Your task to perform on an android device: Go to calendar. Show me events next week Image 0: 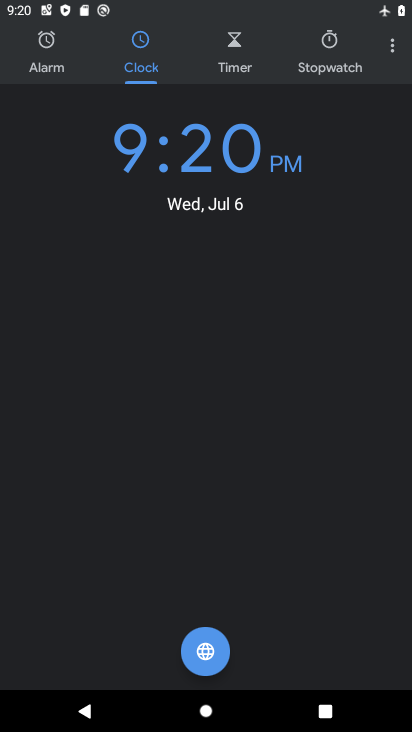
Step 0: press home button
Your task to perform on an android device: Go to calendar. Show me events next week Image 1: 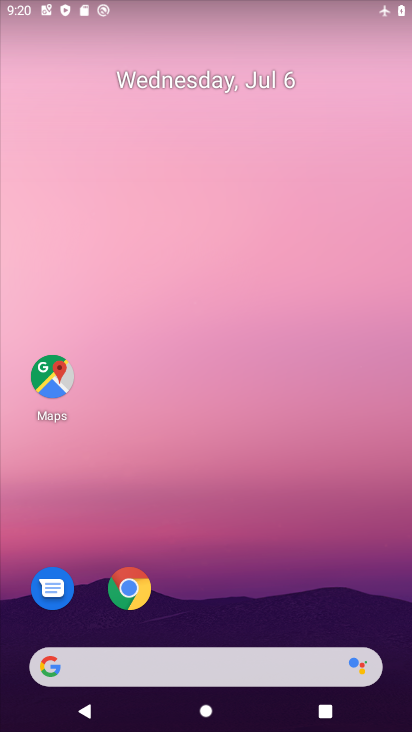
Step 1: drag from (177, 632) to (408, 41)
Your task to perform on an android device: Go to calendar. Show me events next week Image 2: 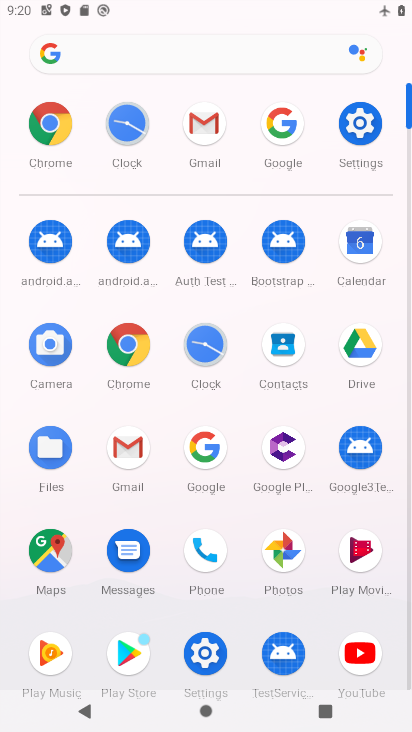
Step 2: click (365, 238)
Your task to perform on an android device: Go to calendar. Show me events next week Image 3: 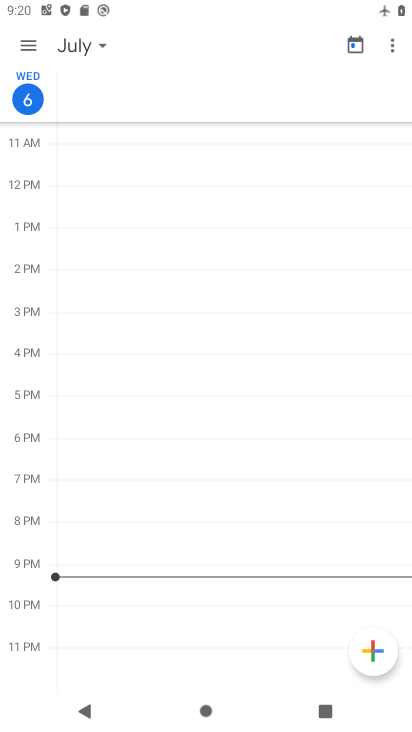
Step 3: click (69, 42)
Your task to perform on an android device: Go to calendar. Show me events next week Image 4: 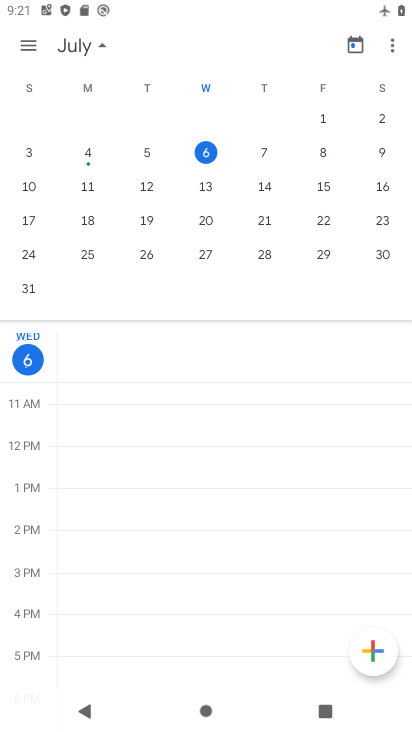
Step 4: click (25, 183)
Your task to perform on an android device: Go to calendar. Show me events next week Image 5: 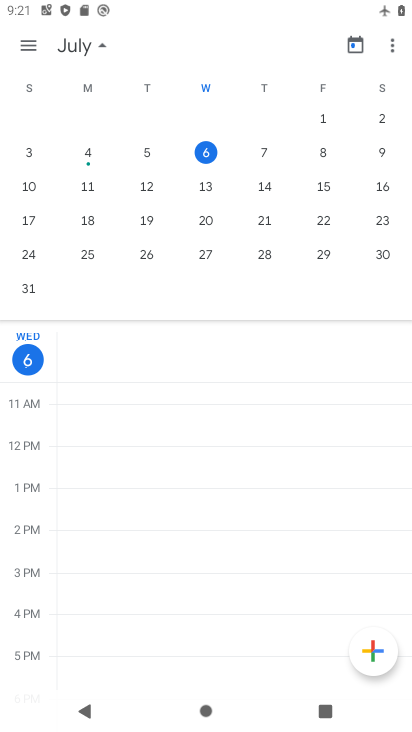
Step 5: click (25, 187)
Your task to perform on an android device: Go to calendar. Show me events next week Image 6: 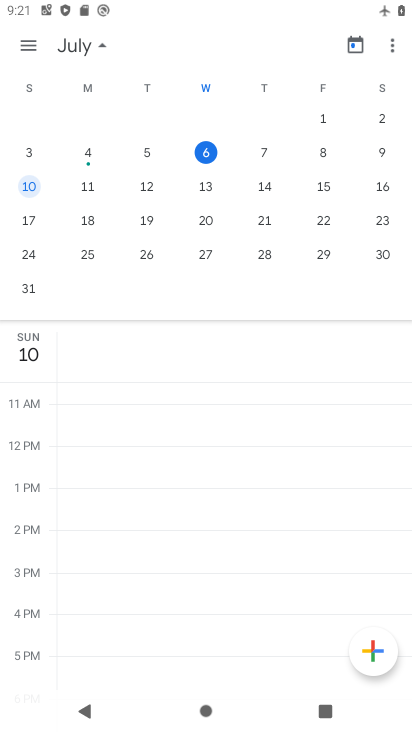
Step 6: click (25, 38)
Your task to perform on an android device: Go to calendar. Show me events next week Image 7: 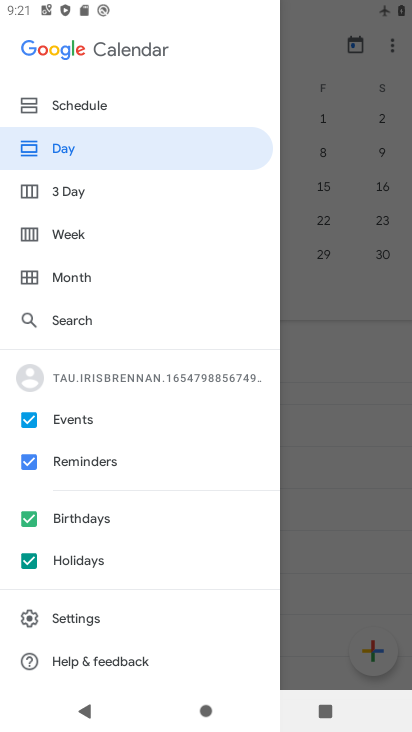
Step 7: click (78, 230)
Your task to perform on an android device: Go to calendar. Show me events next week Image 8: 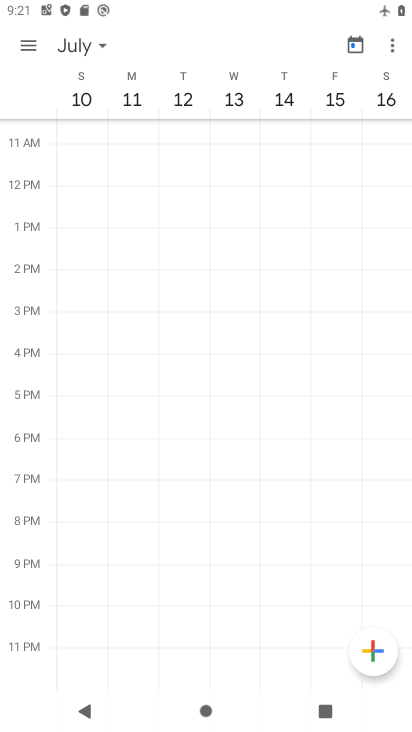
Step 8: click (34, 43)
Your task to perform on an android device: Go to calendar. Show me events next week Image 9: 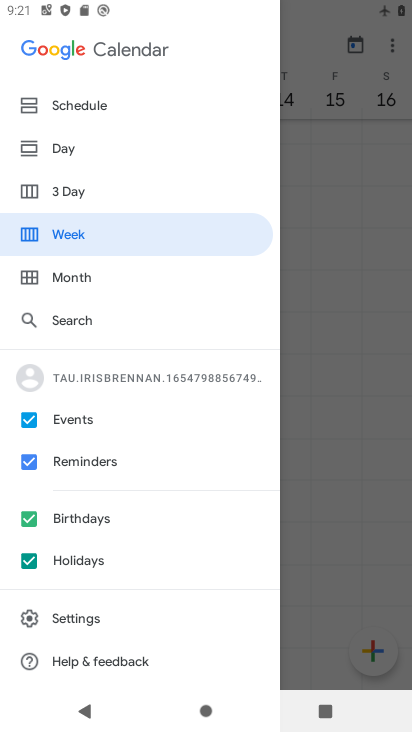
Step 9: click (100, 106)
Your task to perform on an android device: Go to calendar. Show me events next week Image 10: 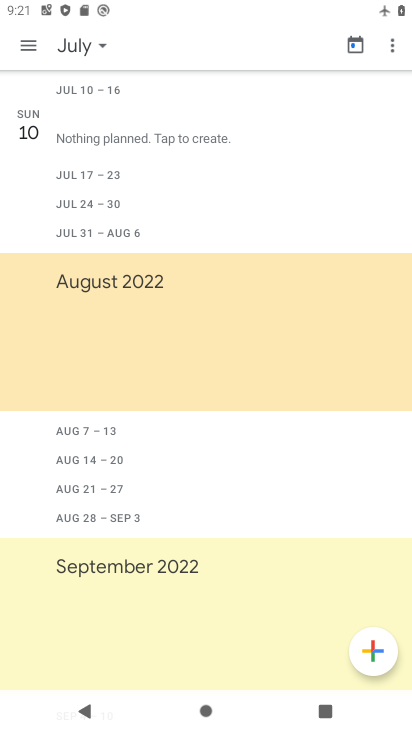
Step 10: drag from (191, 542) to (400, 117)
Your task to perform on an android device: Go to calendar. Show me events next week Image 11: 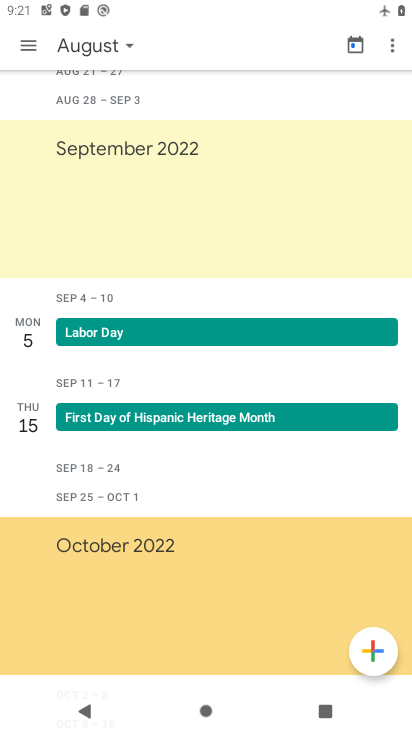
Step 11: click (29, 39)
Your task to perform on an android device: Go to calendar. Show me events next week Image 12: 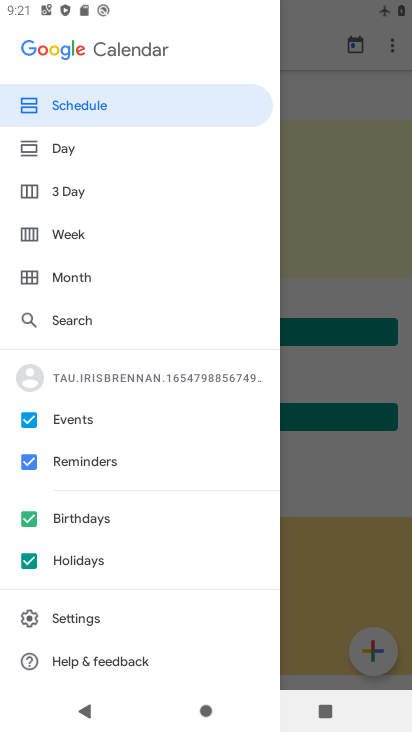
Step 12: task complete